Your task to perform on an android device: Go to accessibility settings Image 0: 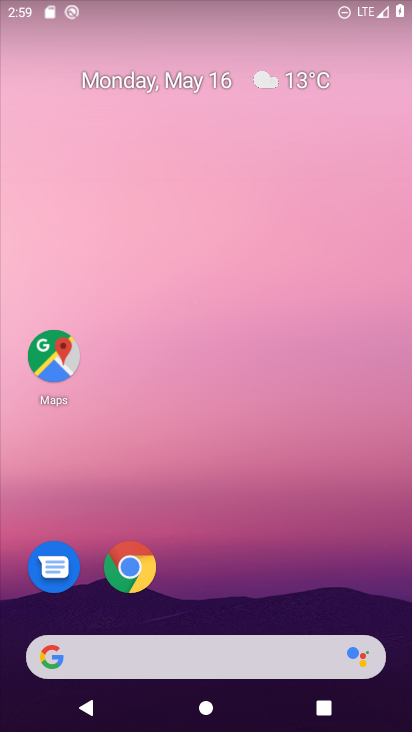
Step 0: drag from (283, 564) to (244, 13)
Your task to perform on an android device: Go to accessibility settings Image 1: 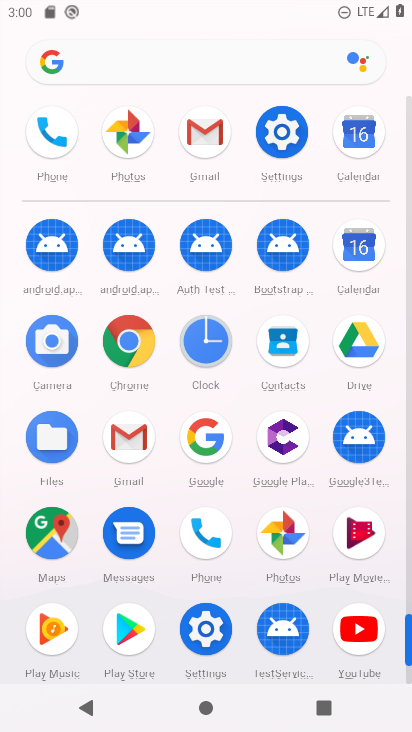
Step 1: click (212, 651)
Your task to perform on an android device: Go to accessibility settings Image 2: 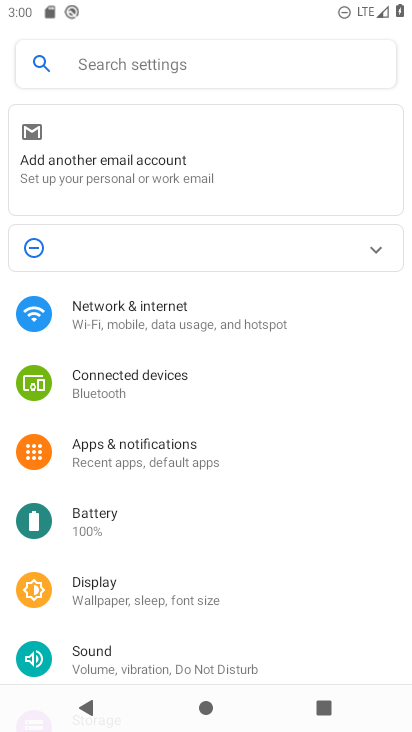
Step 2: drag from (210, 593) to (194, 4)
Your task to perform on an android device: Go to accessibility settings Image 3: 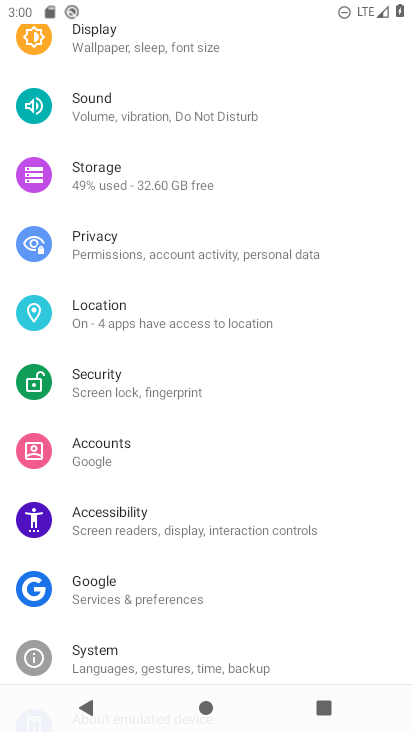
Step 3: click (119, 527)
Your task to perform on an android device: Go to accessibility settings Image 4: 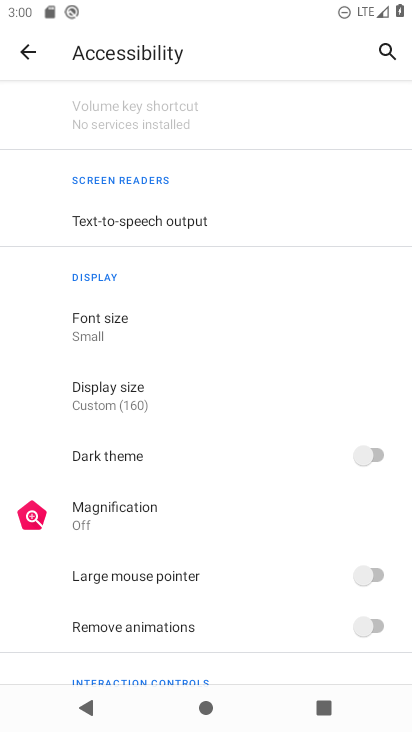
Step 4: task complete